Your task to perform on an android device: Add alienware aurora to the cart on costco.com, then select checkout. Image 0: 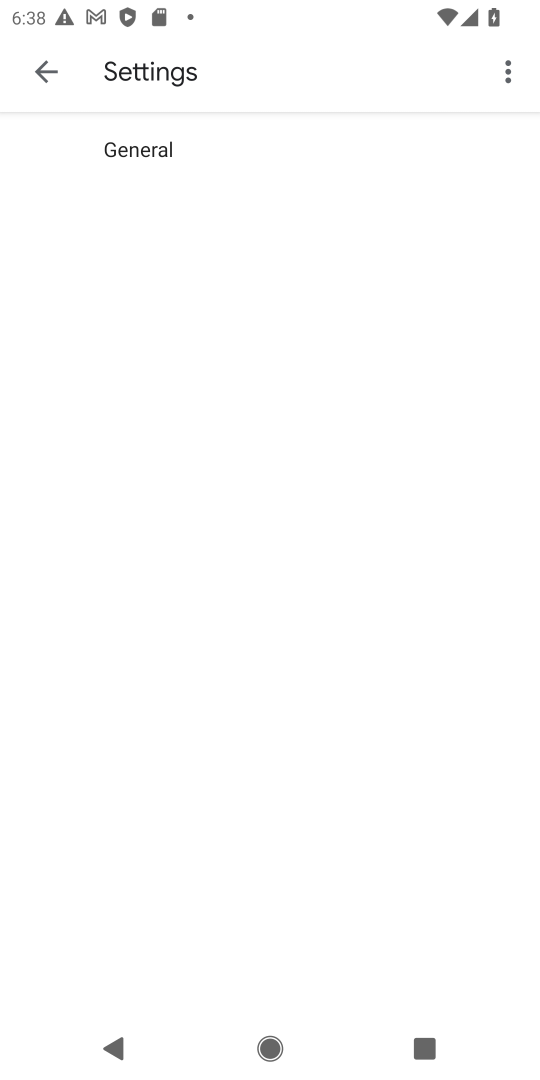
Step 0: press home button
Your task to perform on an android device: Add alienware aurora to the cart on costco.com, then select checkout. Image 1: 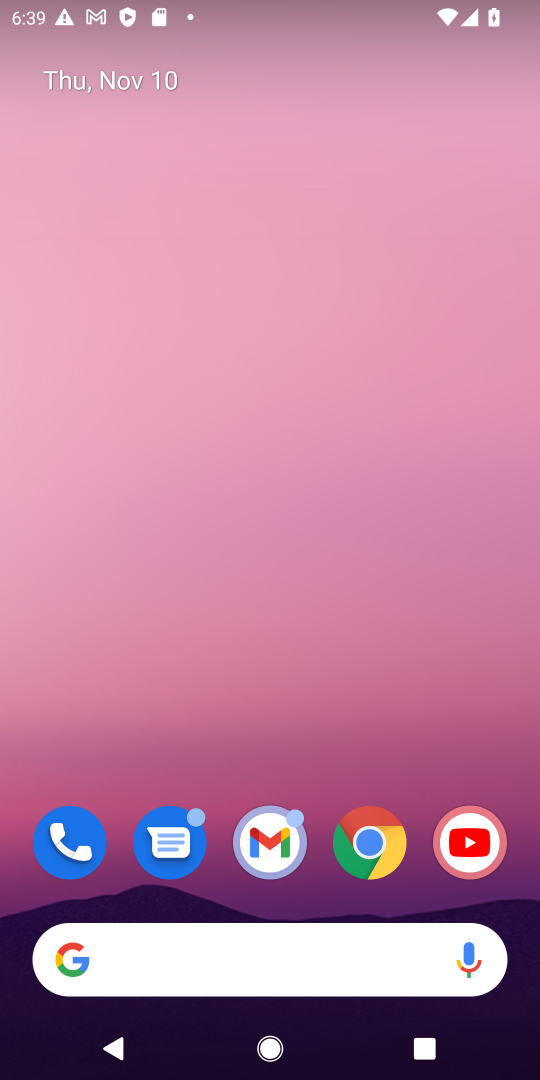
Step 1: click (382, 844)
Your task to perform on an android device: Add alienware aurora to the cart on costco.com, then select checkout. Image 2: 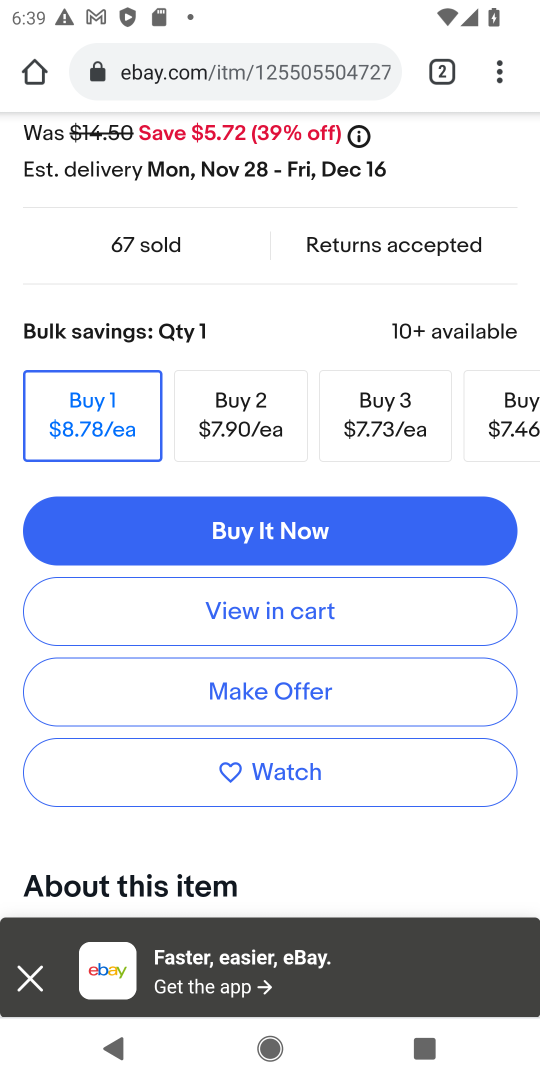
Step 2: click (431, 65)
Your task to perform on an android device: Add alienware aurora to the cart on costco.com, then select checkout. Image 3: 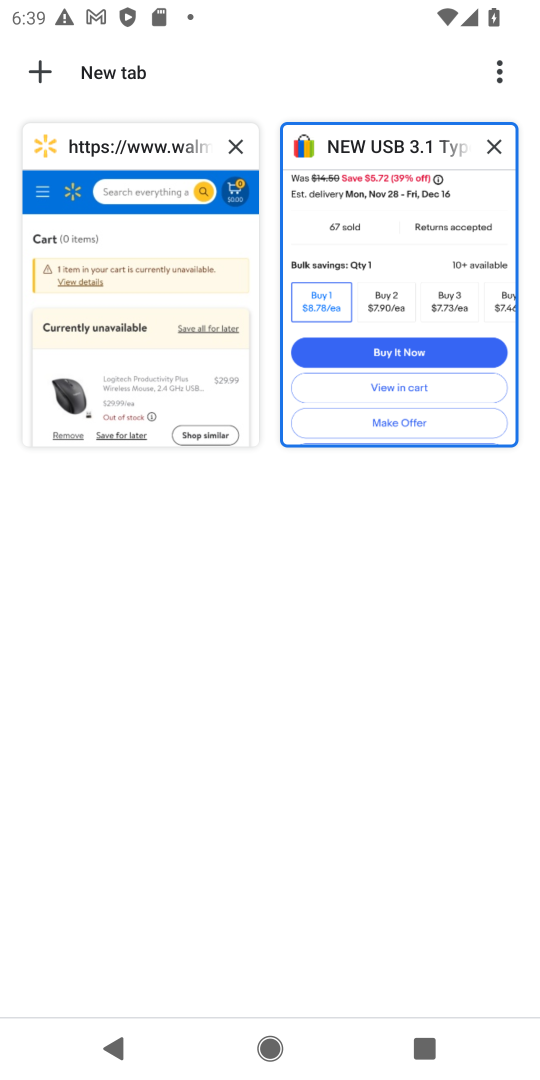
Step 3: click (42, 85)
Your task to perform on an android device: Add alienware aurora to the cart on costco.com, then select checkout. Image 4: 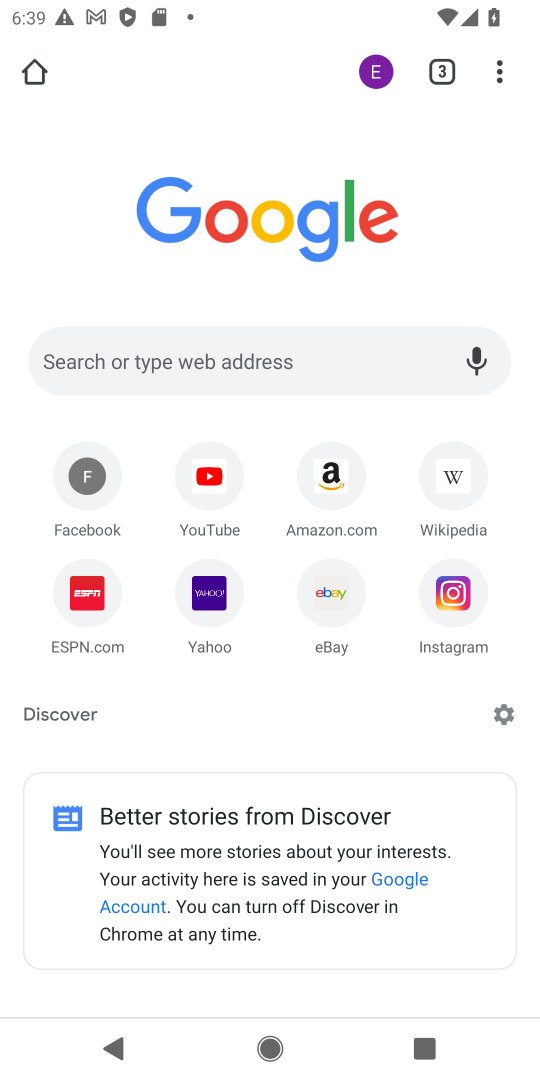
Step 4: click (172, 362)
Your task to perform on an android device: Add alienware aurora to the cart on costco.com, then select checkout. Image 5: 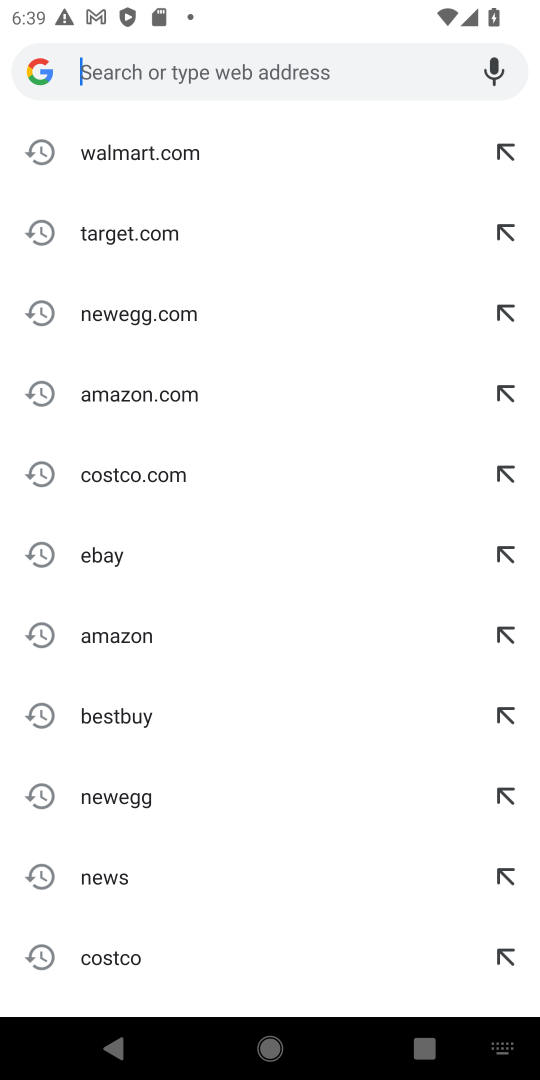
Step 5: click (150, 470)
Your task to perform on an android device: Add alienware aurora to the cart on costco.com, then select checkout. Image 6: 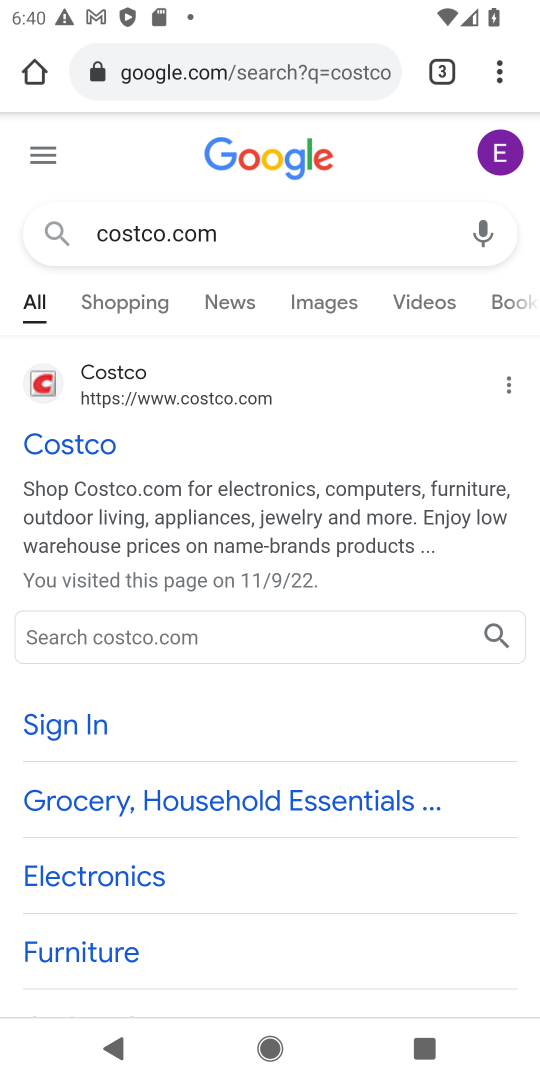
Step 6: click (130, 633)
Your task to perform on an android device: Add alienware aurora to the cart on costco.com, then select checkout. Image 7: 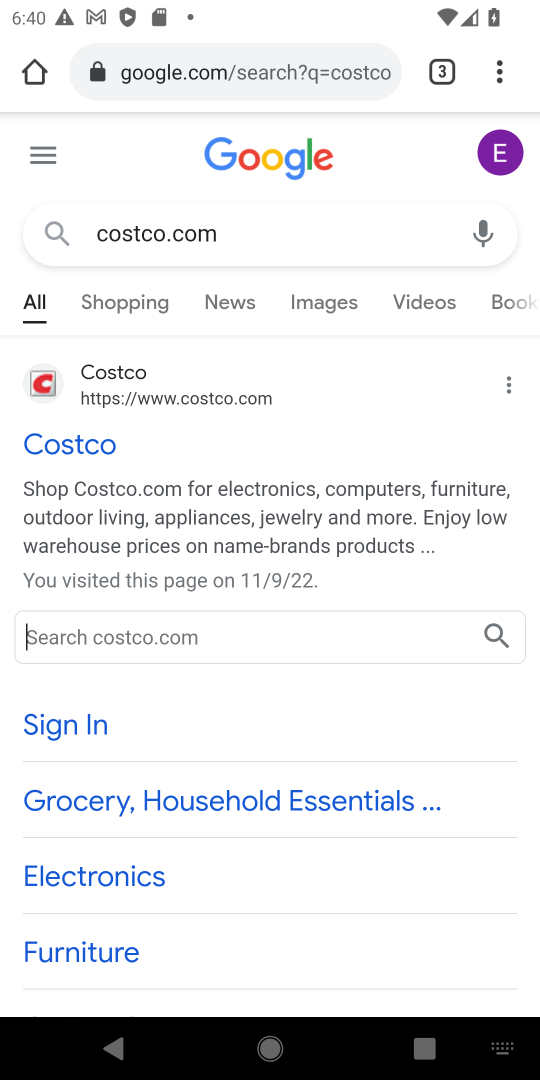
Step 7: type "alienware aurora"
Your task to perform on an android device: Add alienware aurora to the cart on costco.com, then select checkout. Image 8: 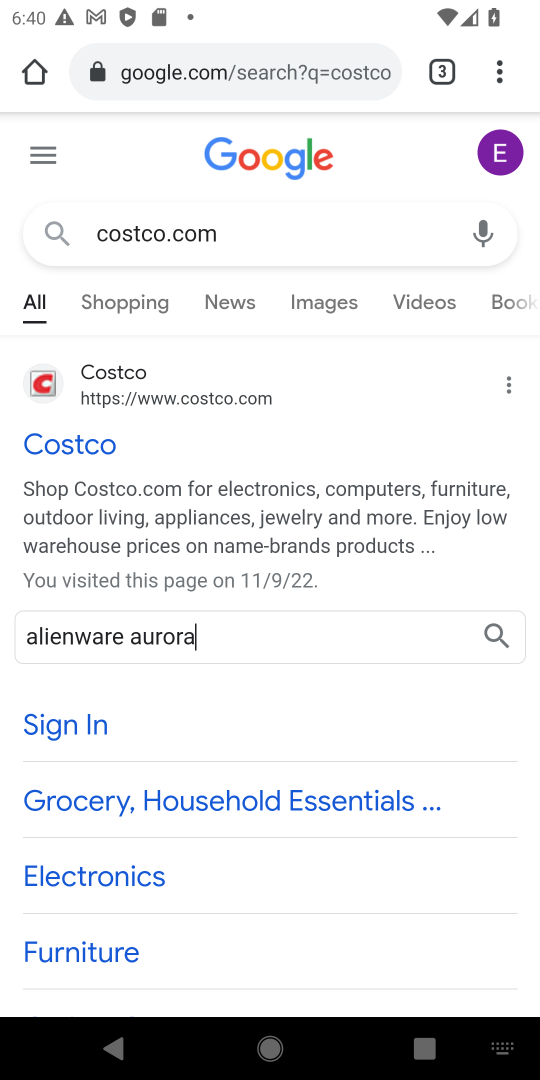
Step 8: click (495, 631)
Your task to perform on an android device: Add alienware aurora to the cart on costco.com, then select checkout. Image 9: 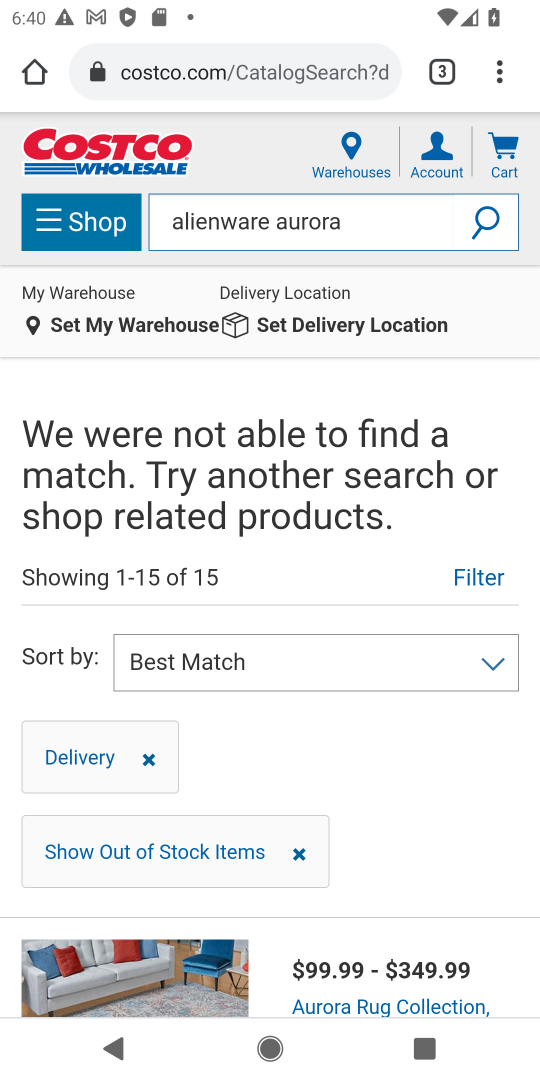
Step 9: task complete